Your task to perform on an android device: toggle notifications settings in the gmail app Image 0: 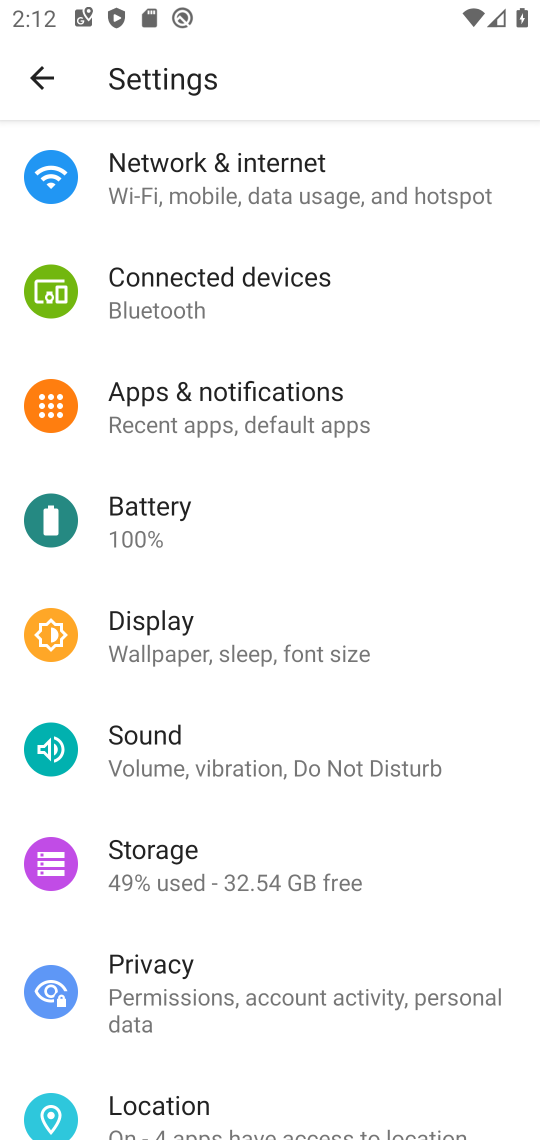
Step 0: press home button
Your task to perform on an android device: toggle notifications settings in the gmail app Image 1: 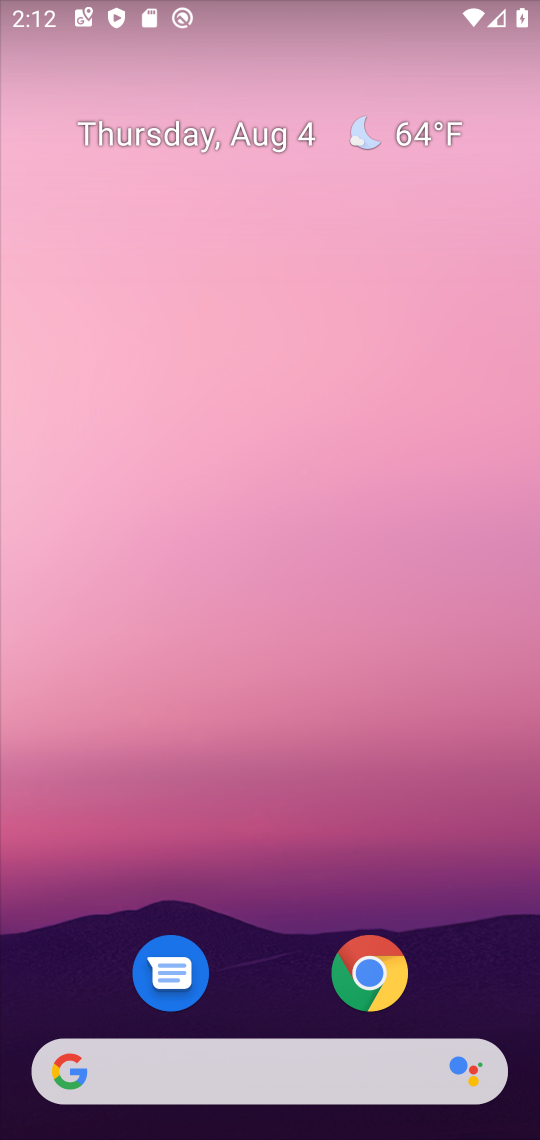
Step 1: drag from (310, 1025) to (289, 203)
Your task to perform on an android device: toggle notifications settings in the gmail app Image 2: 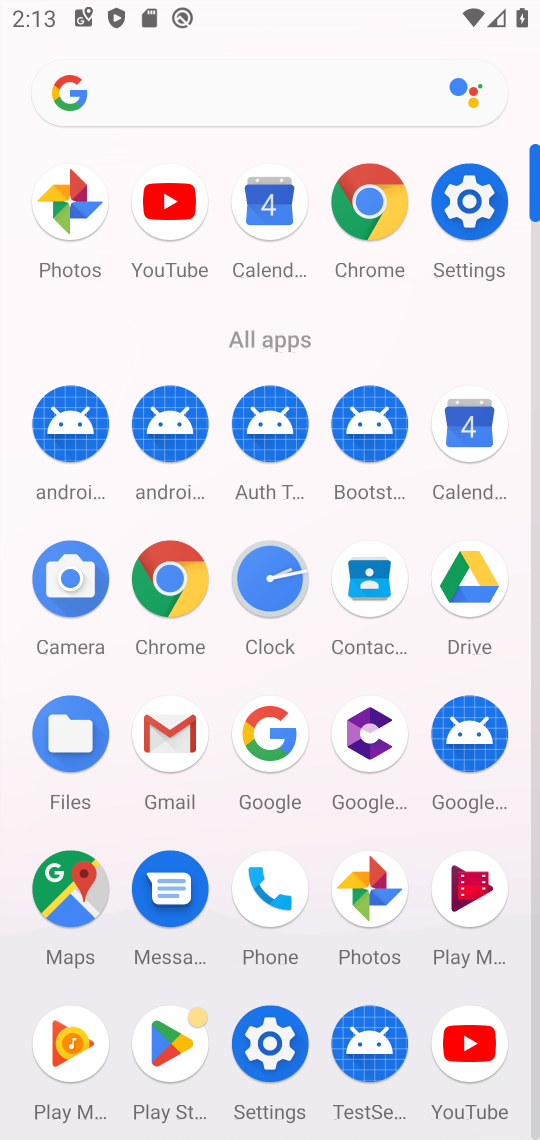
Step 2: click (194, 755)
Your task to perform on an android device: toggle notifications settings in the gmail app Image 3: 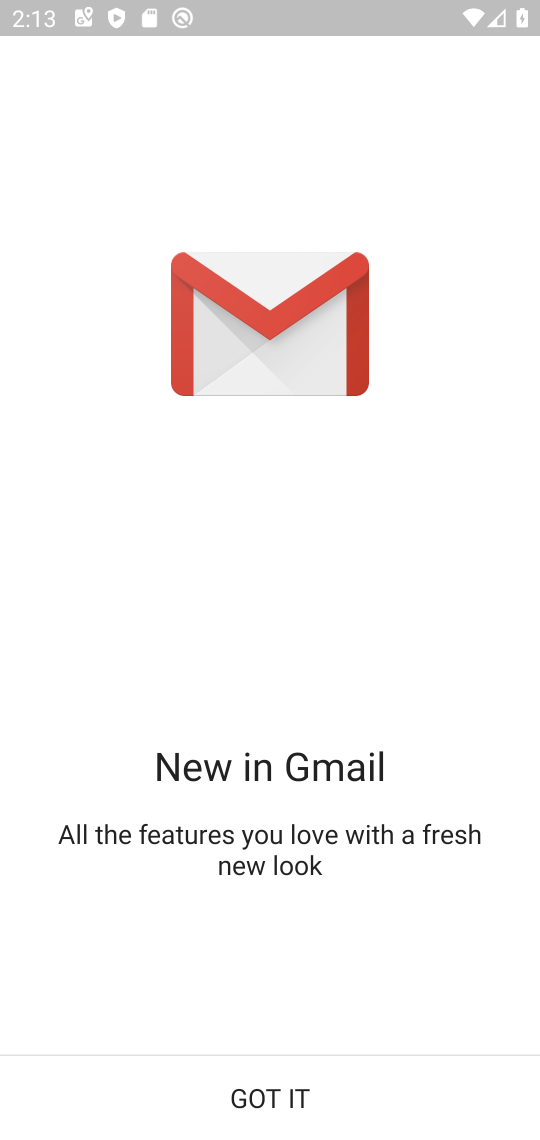
Step 3: click (264, 1103)
Your task to perform on an android device: toggle notifications settings in the gmail app Image 4: 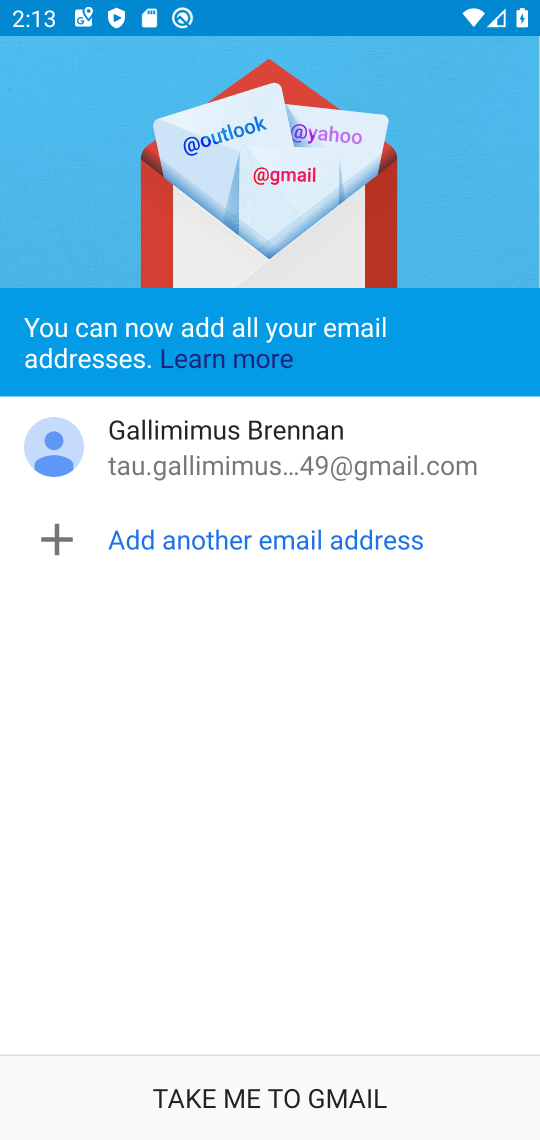
Step 4: click (264, 1099)
Your task to perform on an android device: toggle notifications settings in the gmail app Image 5: 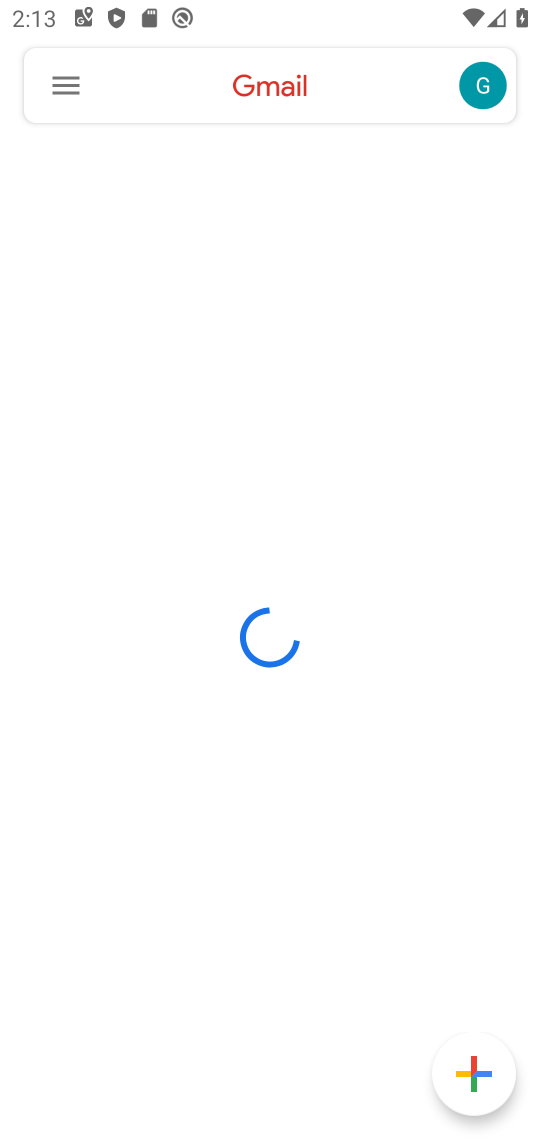
Step 5: click (47, 66)
Your task to perform on an android device: toggle notifications settings in the gmail app Image 6: 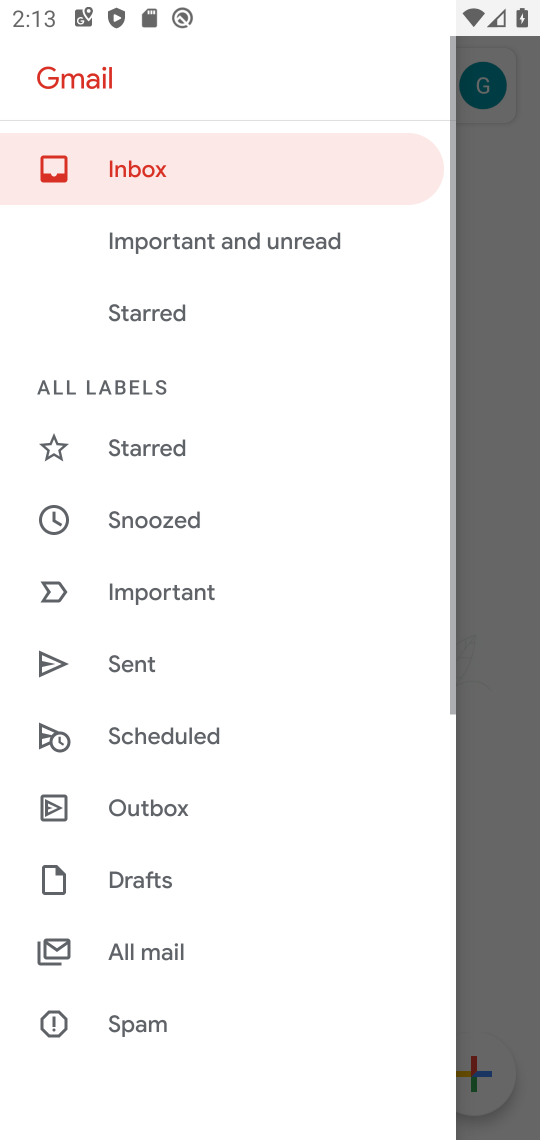
Step 6: click (138, 377)
Your task to perform on an android device: toggle notifications settings in the gmail app Image 7: 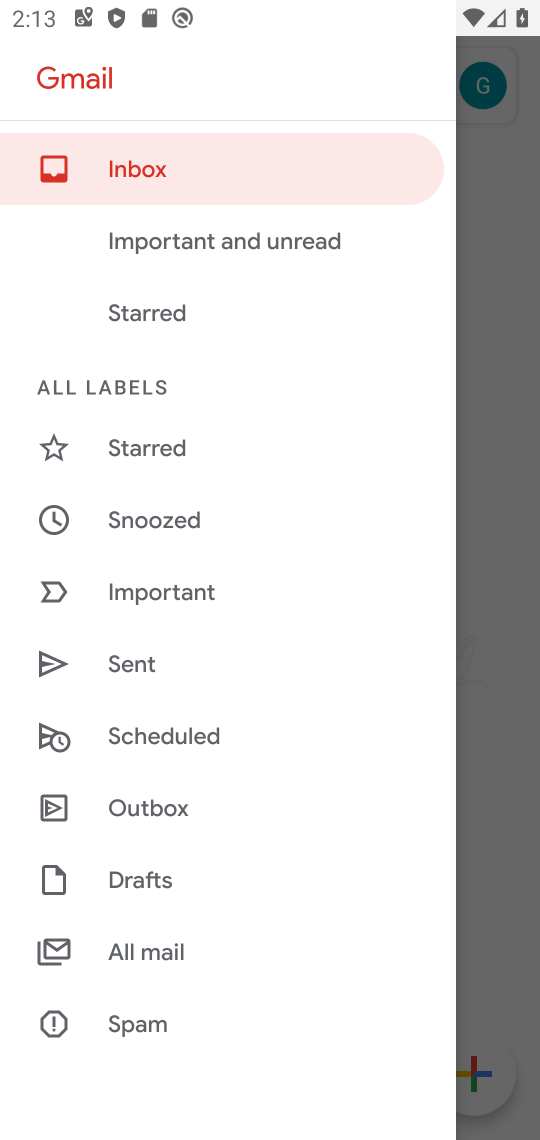
Step 7: drag from (284, 786) to (304, 215)
Your task to perform on an android device: toggle notifications settings in the gmail app Image 8: 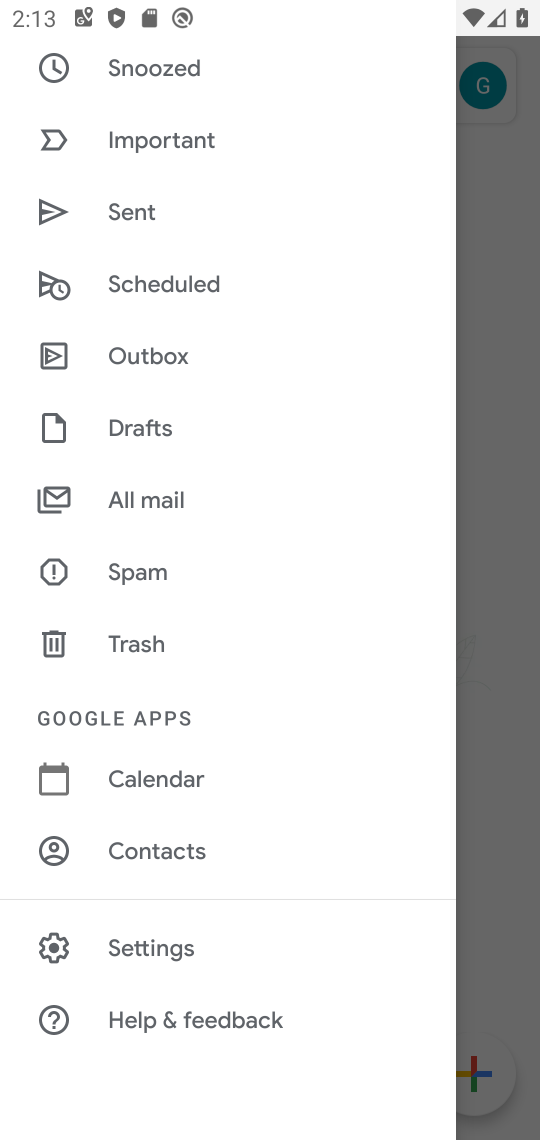
Step 8: click (119, 950)
Your task to perform on an android device: toggle notifications settings in the gmail app Image 9: 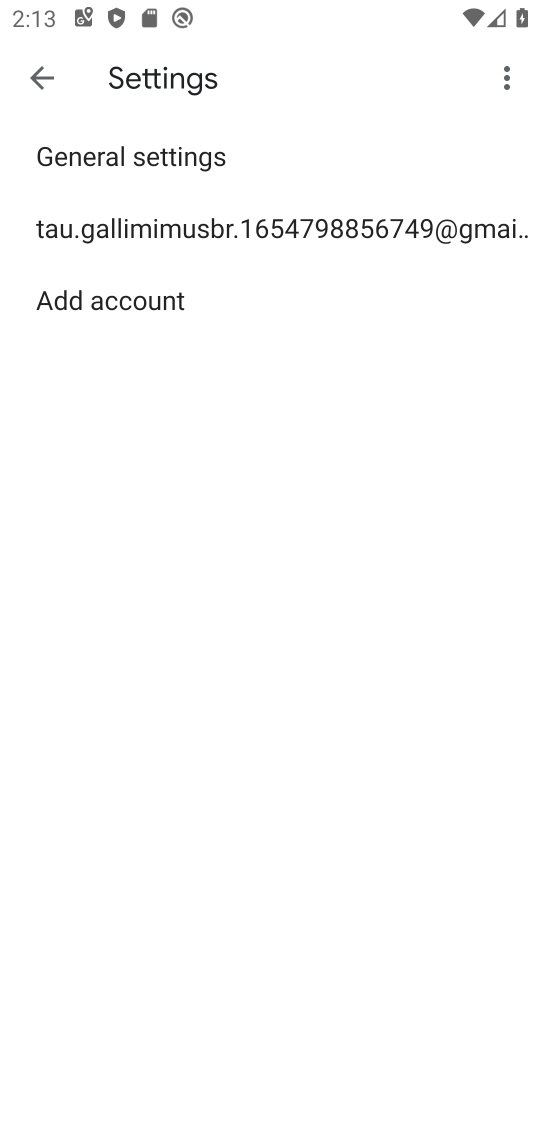
Step 9: click (55, 170)
Your task to perform on an android device: toggle notifications settings in the gmail app Image 10: 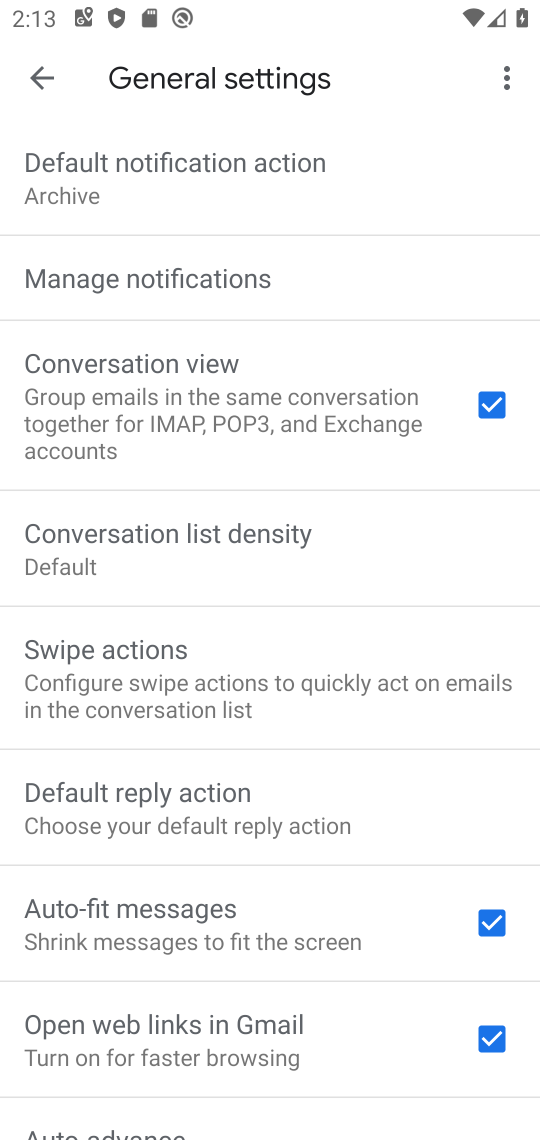
Step 10: click (94, 286)
Your task to perform on an android device: toggle notifications settings in the gmail app Image 11: 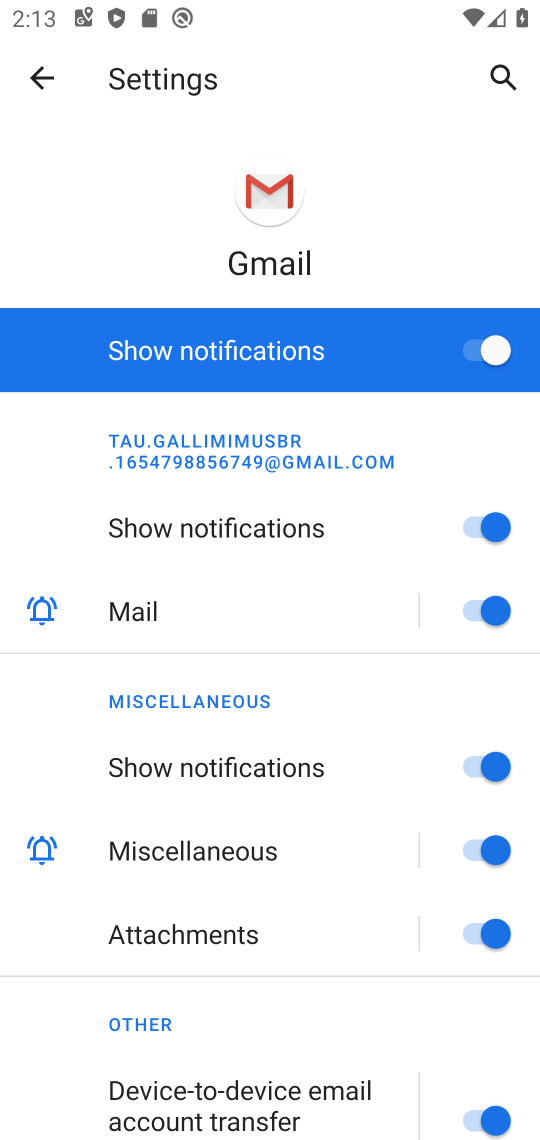
Step 11: click (458, 341)
Your task to perform on an android device: toggle notifications settings in the gmail app Image 12: 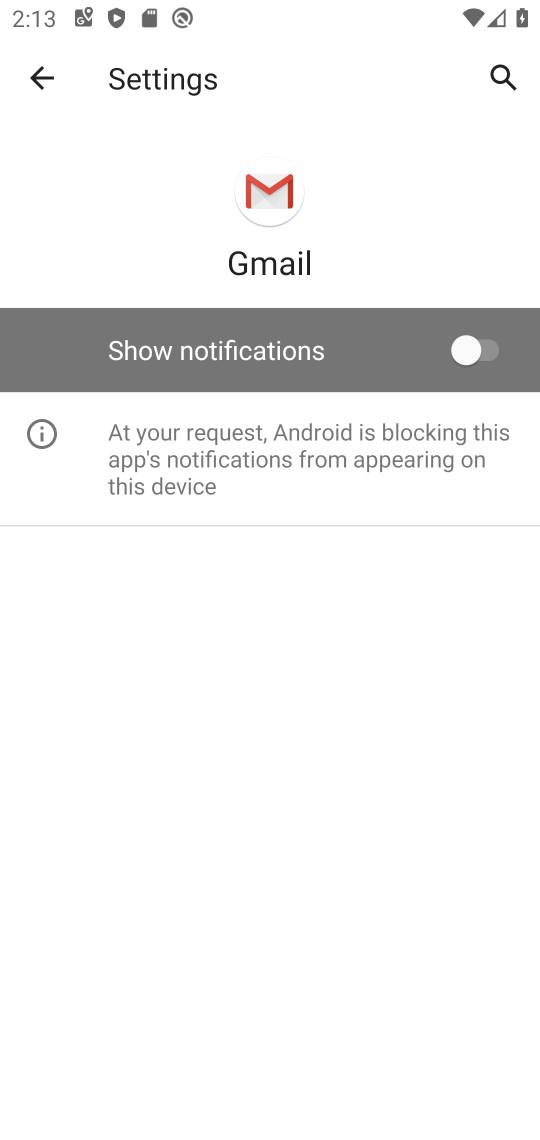
Step 12: task complete